Your task to perform on an android device: Open wifi settings Image 0: 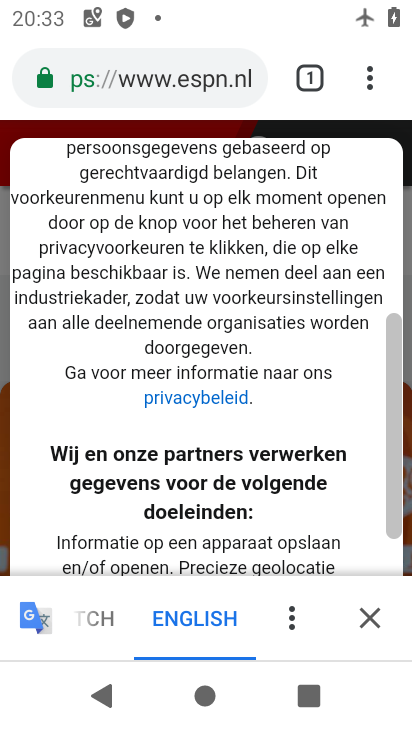
Step 0: press home button
Your task to perform on an android device: Open wifi settings Image 1: 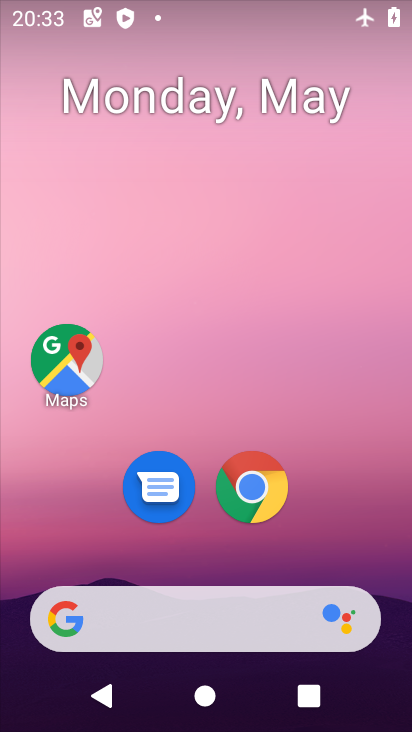
Step 1: drag from (381, 559) to (361, 166)
Your task to perform on an android device: Open wifi settings Image 2: 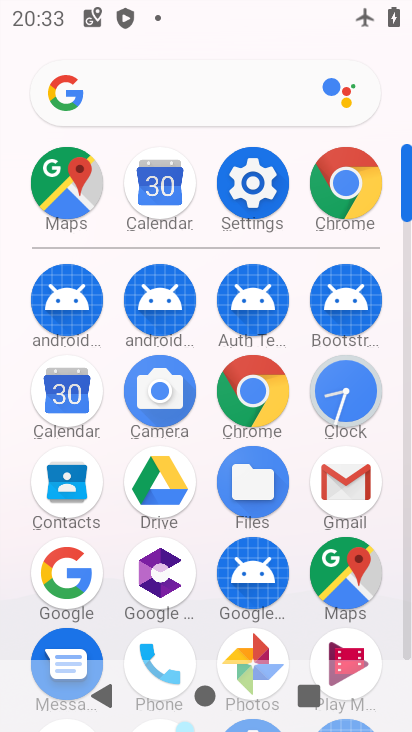
Step 2: click (250, 197)
Your task to perform on an android device: Open wifi settings Image 3: 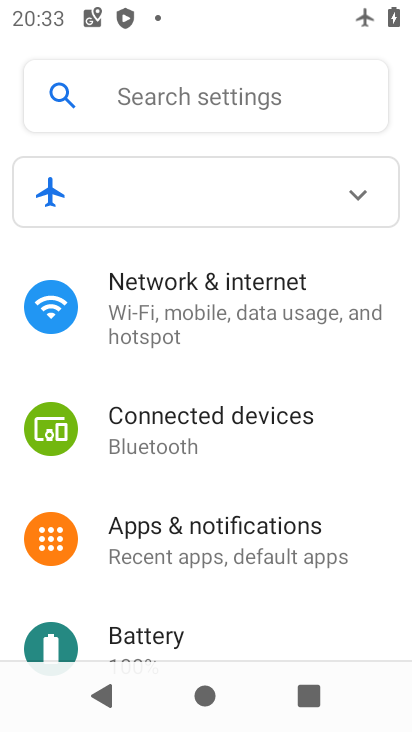
Step 3: drag from (374, 616) to (377, 504)
Your task to perform on an android device: Open wifi settings Image 4: 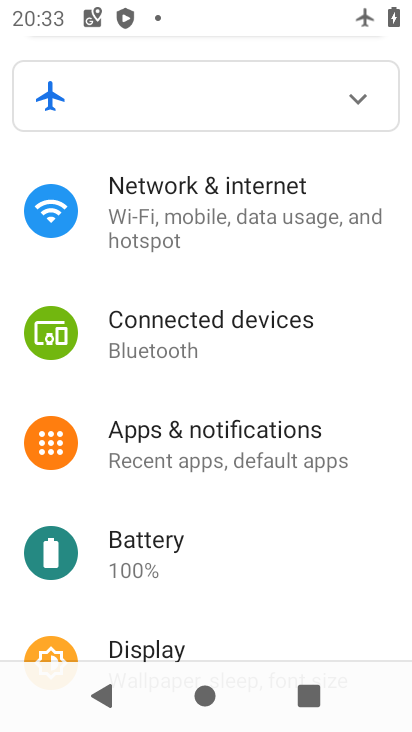
Step 4: drag from (377, 619) to (385, 488)
Your task to perform on an android device: Open wifi settings Image 5: 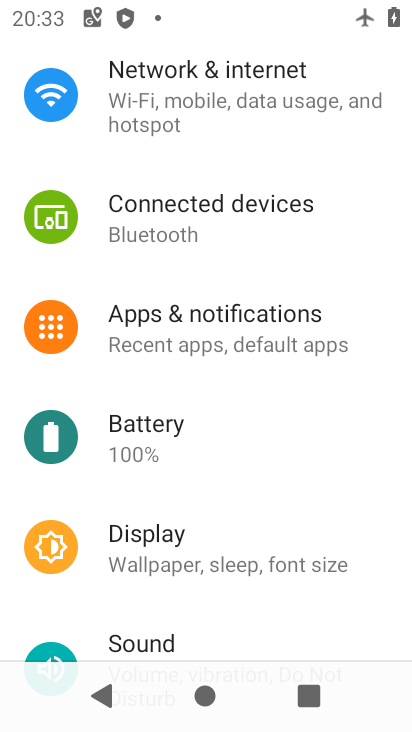
Step 5: drag from (365, 632) to (370, 482)
Your task to perform on an android device: Open wifi settings Image 6: 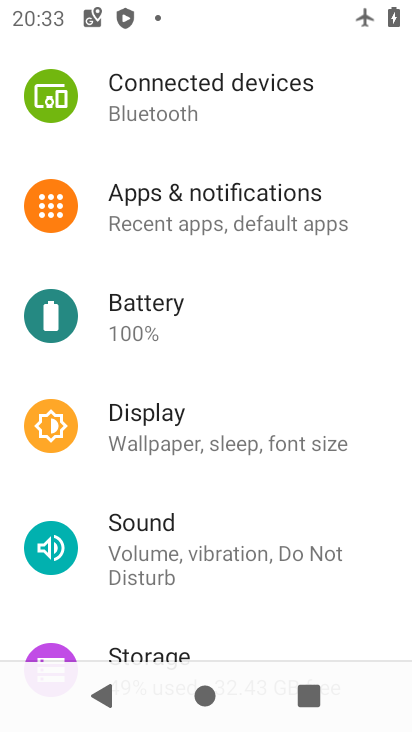
Step 6: drag from (355, 577) to (356, 423)
Your task to perform on an android device: Open wifi settings Image 7: 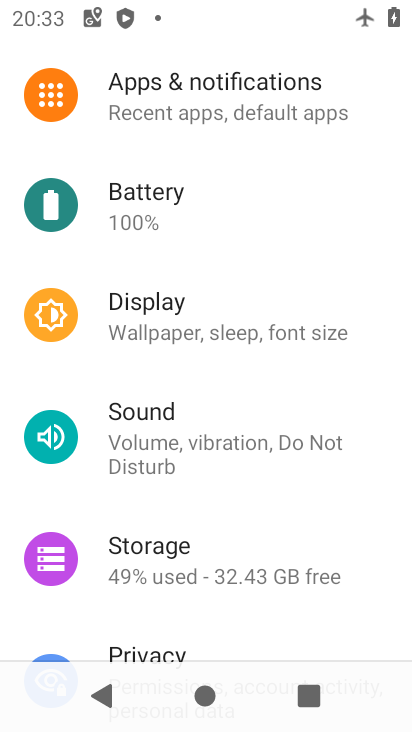
Step 7: drag from (368, 600) to (381, 446)
Your task to perform on an android device: Open wifi settings Image 8: 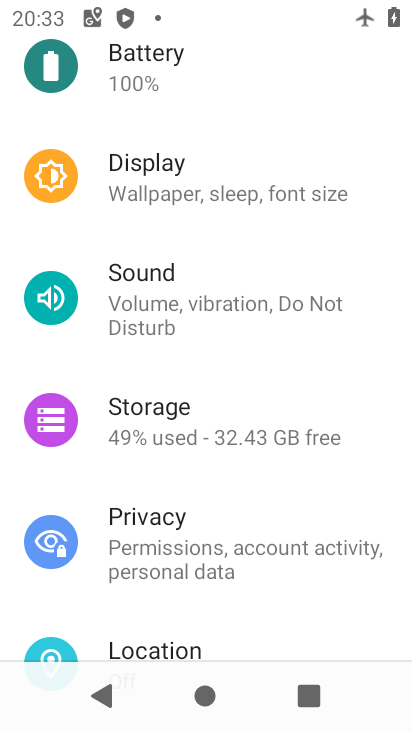
Step 8: drag from (380, 614) to (383, 423)
Your task to perform on an android device: Open wifi settings Image 9: 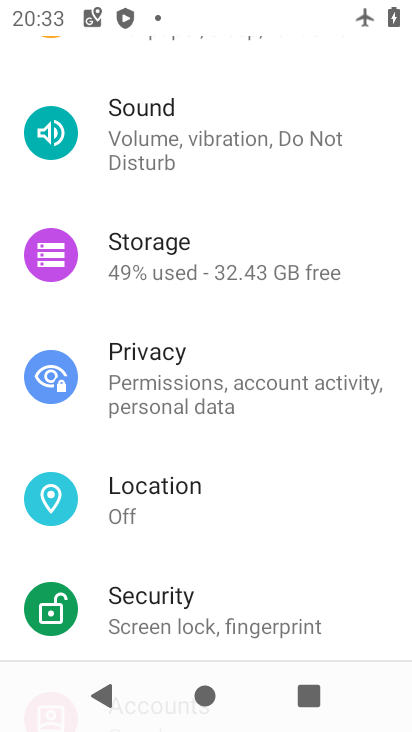
Step 9: drag from (371, 588) to (365, 454)
Your task to perform on an android device: Open wifi settings Image 10: 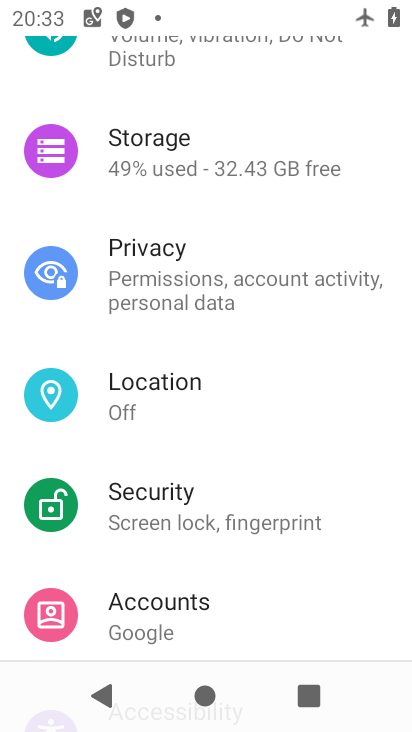
Step 10: drag from (352, 393) to (347, 557)
Your task to perform on an android device: Open wifi settings Image 11: 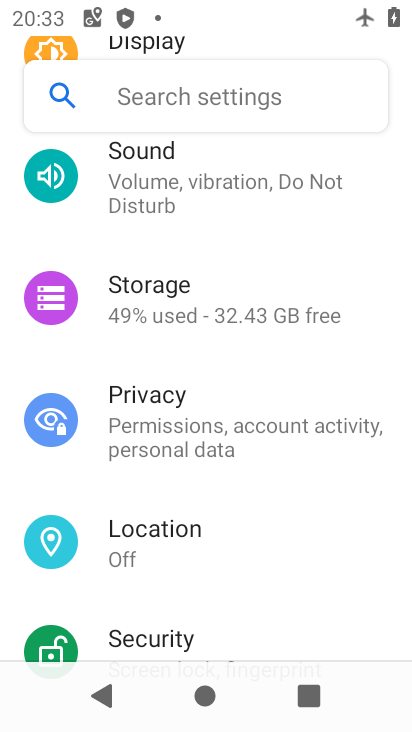
Step 11: drag from (354, 361) to (361, 535)
Your task to perform on an android device: Open wifi settings Image 12: 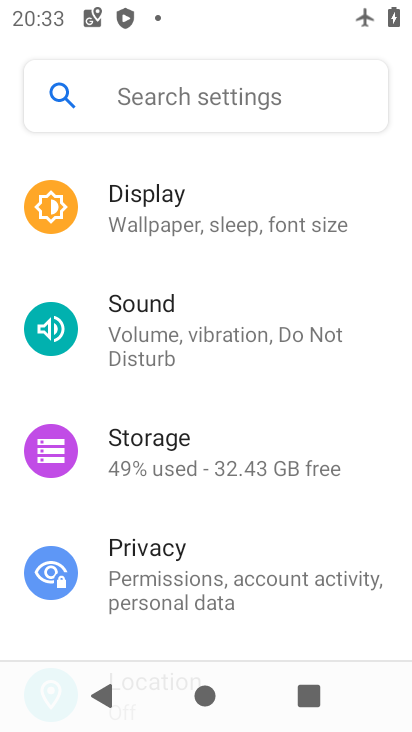
Step 12: drag from (376, 353) to (371, 462)
Your task to perform on an android device: Open wifi settings Image 13: 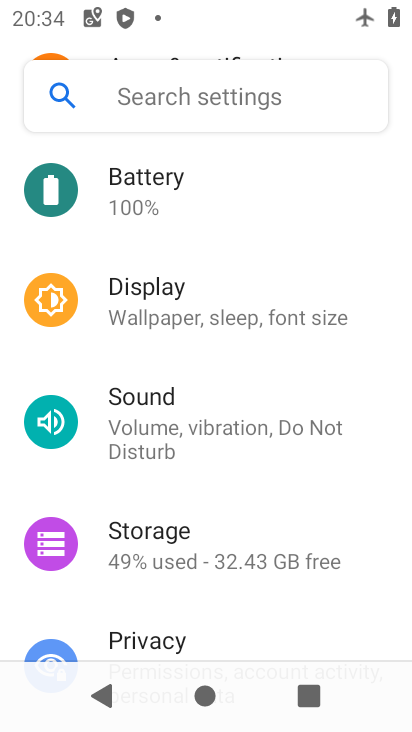
Step 13: drag from (376, 288) to (370, 416)
Your task to perform on an android device: Open wifi settings Image 14: 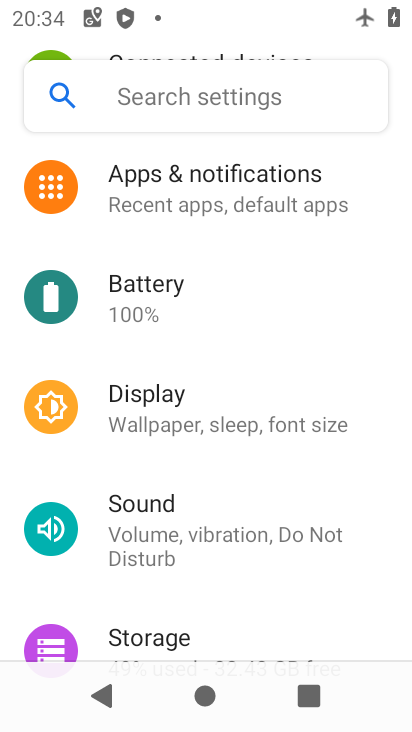
Step 14: drag from (360, 275) to (361, 409)
Your task to perform on an android device: Open wifi settings Image 15: 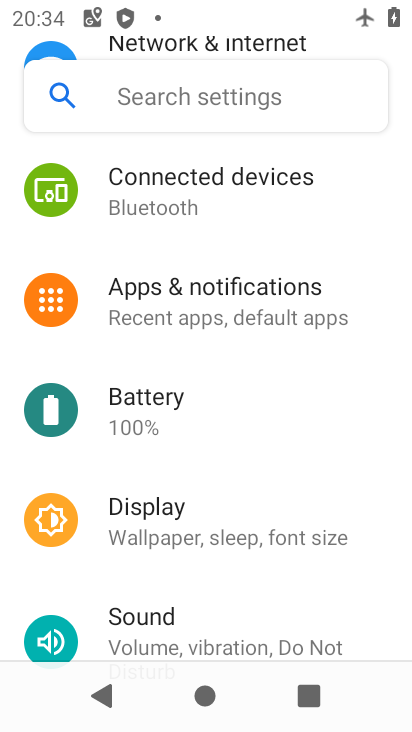
Step 15: drag from (359, 238) to (364, 376)
Your task to perform on an android device: Open wifi settings Image 16: 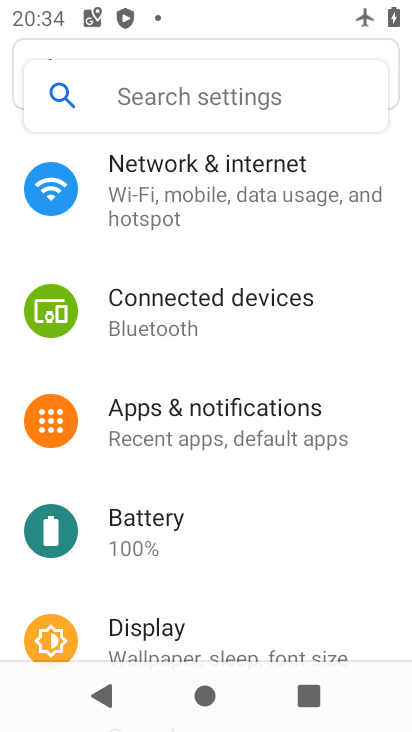
Step 16: drag from (360, 237) to (356, 382)
Your task to perform on an android device: Open wifi settings Image 17: 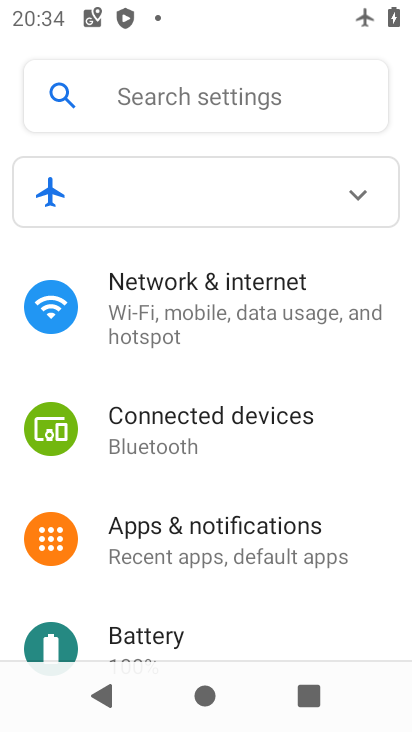
Step 17: drag from (348, 162) to (350, 378)
Your task to perform on an android device: Open wifi settings Image 18: 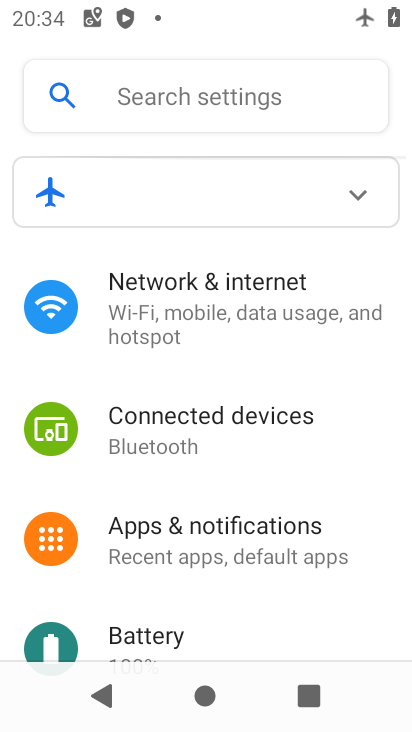
Step 18: click (324, 276)
Your task to perform on an android device: Open wifi settings Image 19: 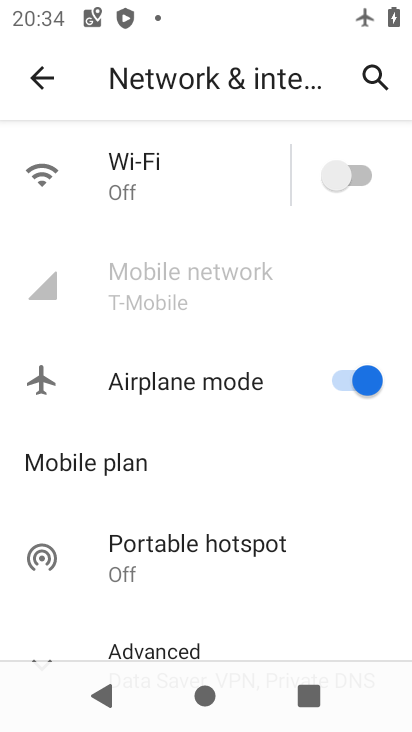
Step 19: click (155, 176)
Your task to perform on an android device: Open wifi settings Image 20: 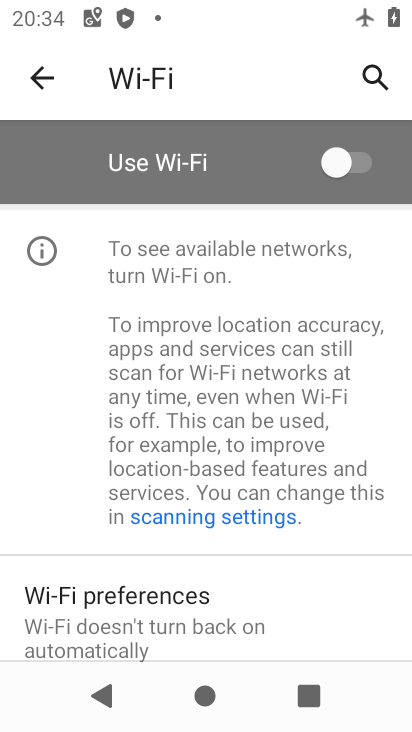
Step 20: task complete